Your task to perform on an android device: What's the weather going to be this weekend? Image 0: 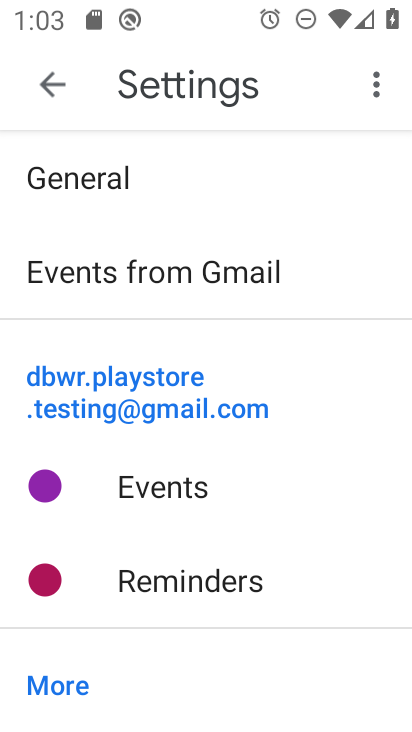
Step 0: press home button
Your task to perform on an android device: What's the weather going to be this weekend? Image 1: 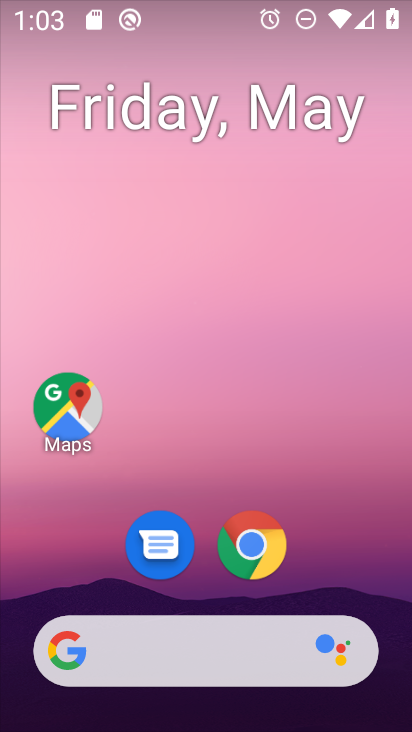
Step 1: drag from (318, 552) to (318, 110)
Your task to perform on an android device: What's the weather going to be this weekend? Image 2: 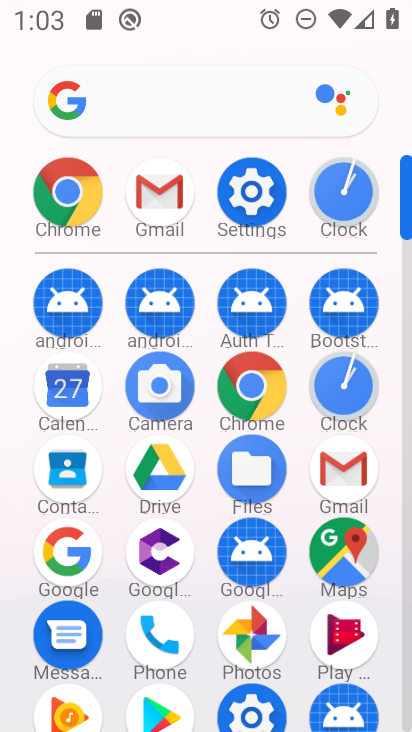
Step 2: click (54, 379)
Your task to perform on an android device: What's the weather going to be this weekend? Image 3: 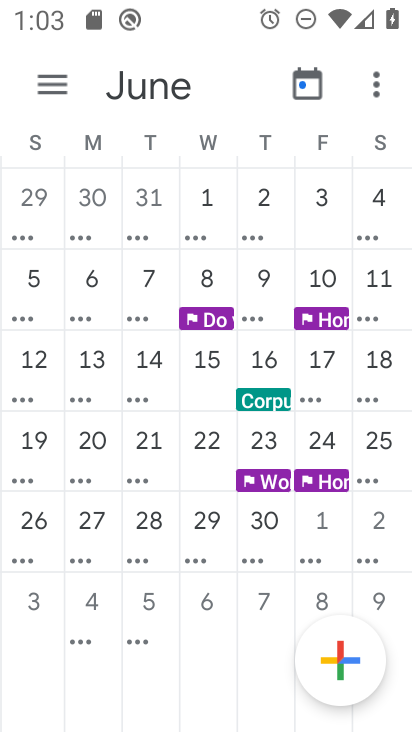
Step 3: click (39, 79)
Your task to perform on an android device: What's the weather going to be this weekend? Image 4: 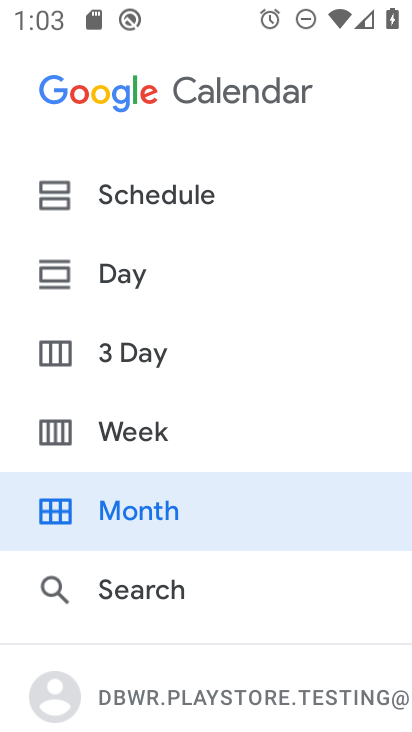
Step 4: click (153, 434)
Your task to perform on an android device: What's the weather going to be this weekend? Image 5: 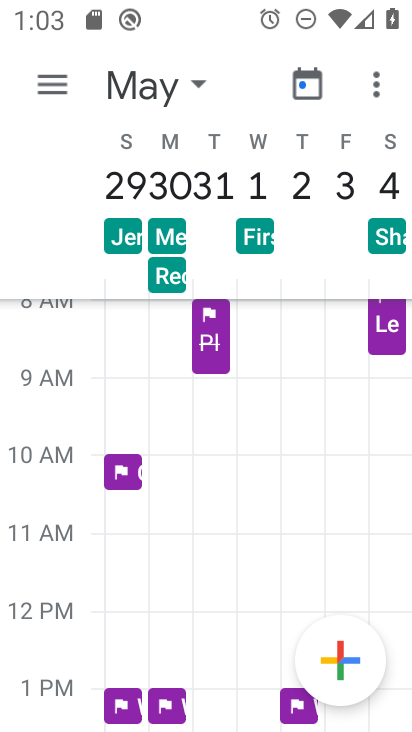
Step 5: task complete